Your task to perform on an android device: change your default location settings in chrome Image 0: 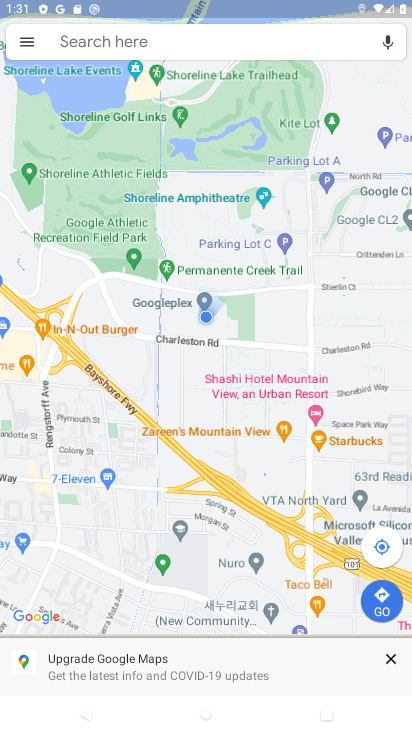
Step 0: press home button
Your task to perform on an android device: change your default location settings in chrome Image 1: 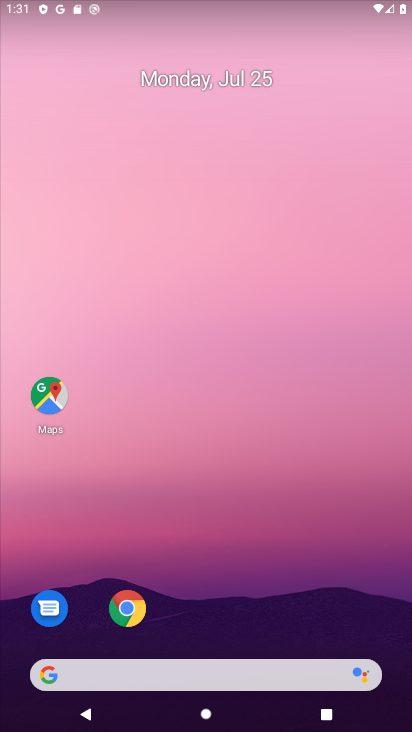
Step 1: click (127, 607)
Your task to perform on an android device: change your default location settings in chrome Image 2: 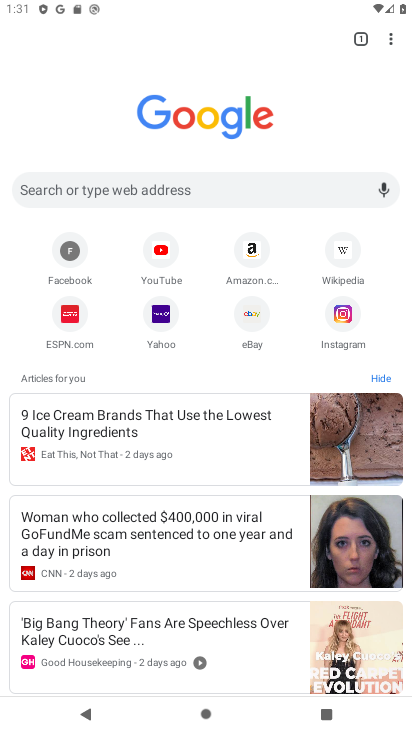
Step 2: click (391, 41)
Your task to perform on an android device: change your default location settings in chrome Image 3: 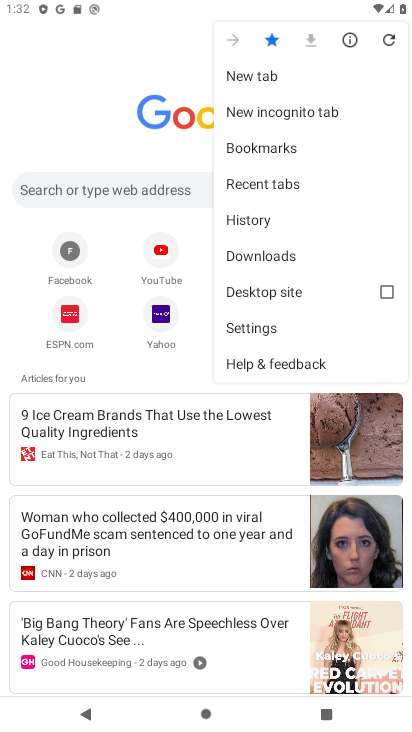
Step 3: click (259, 327)
Your task to perform on an android device: change your default location settings in chrome Image 4: 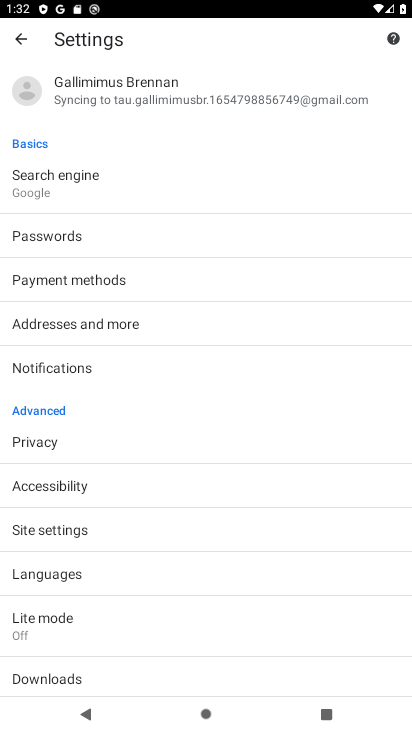
Step 4: click (49, 532)
Your task to perform on an android device: change your default location settings in chrome Image 5: 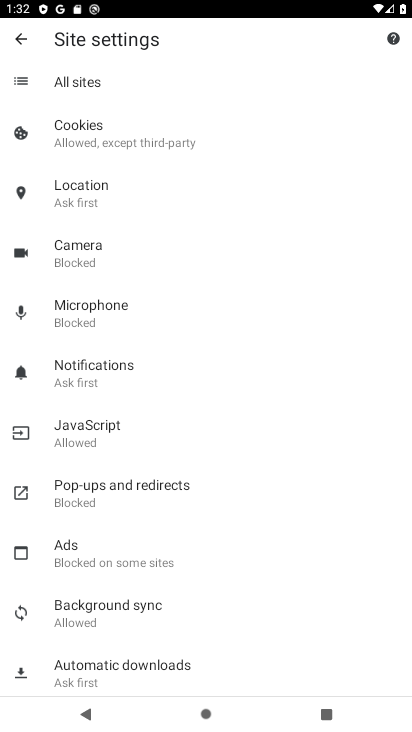
Step 5: click (89, 198)
Your task to perform on an android device: change your default location settings in chrome Image 6: 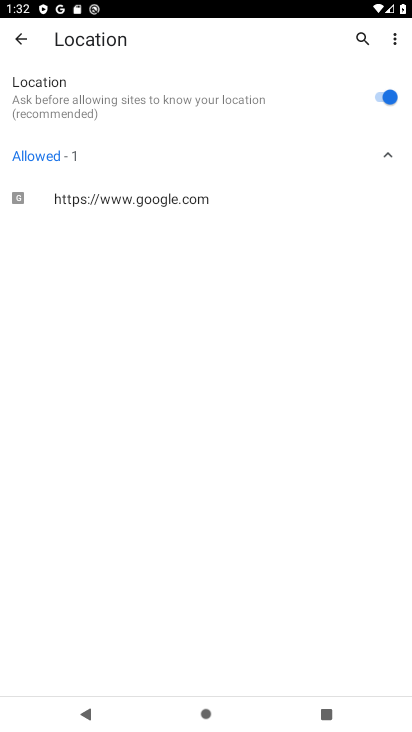
Step 6: task complete